Your task to perform on an android device: turn on javascript in the chrome app Image 0: 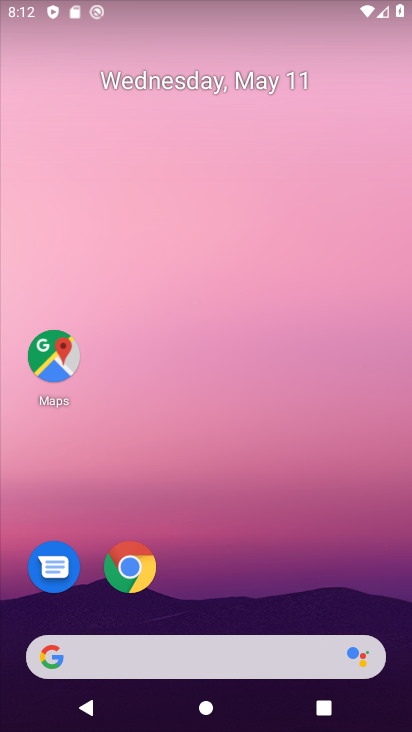
Step 0: drag from (334, 637) to (231, 8)
Your task to perform on an android device: turn on javascript in the chrome app Image 1: 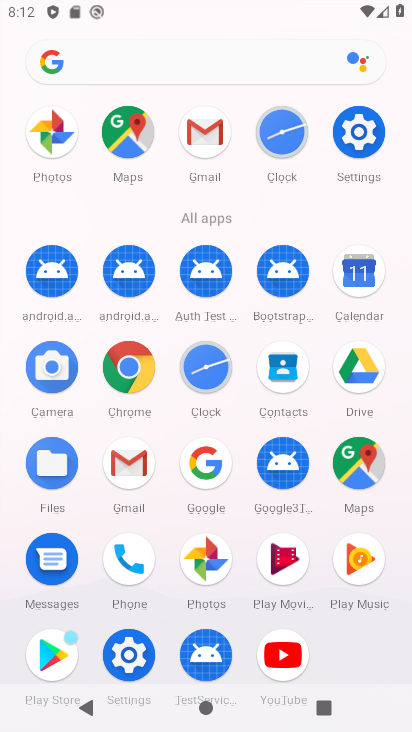
Step 1: click (102, 377)
Your task to perform on an android device: turn on javascript in the chrome app Image 2: 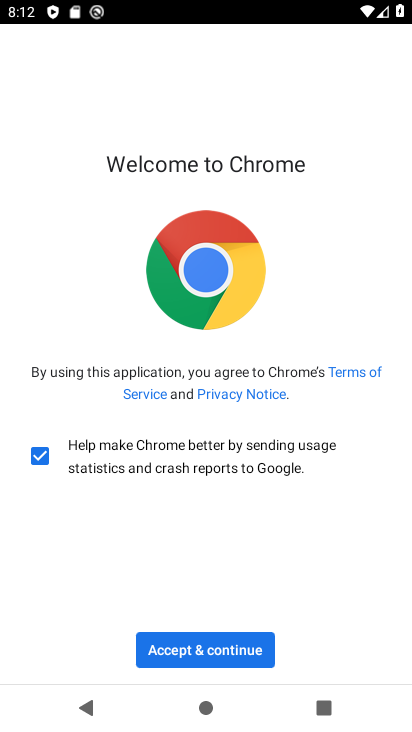
Step 2: click (236, 647)
Your task to perform on an android device: turn on javascript in the chrome app Image 3: 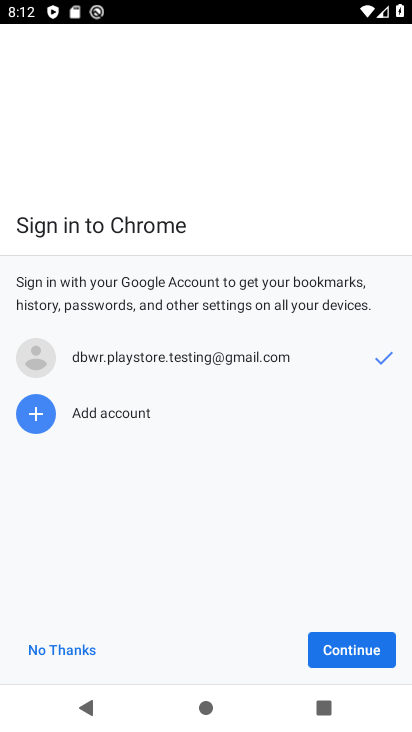
Step 3: click (61, 651)
Your task to perform on an android device: turn on javascript in the chrome app Image 4: 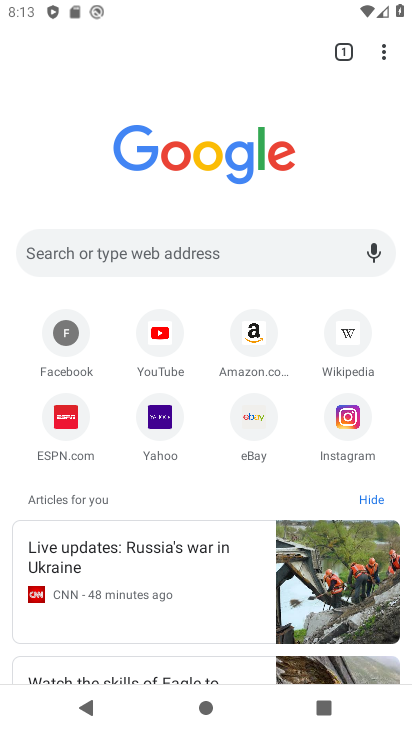
Step 4: drag from (383, 54) to (222, 443)
Your task to perform on an android device: turn on javascript in the chrome app Image 5: 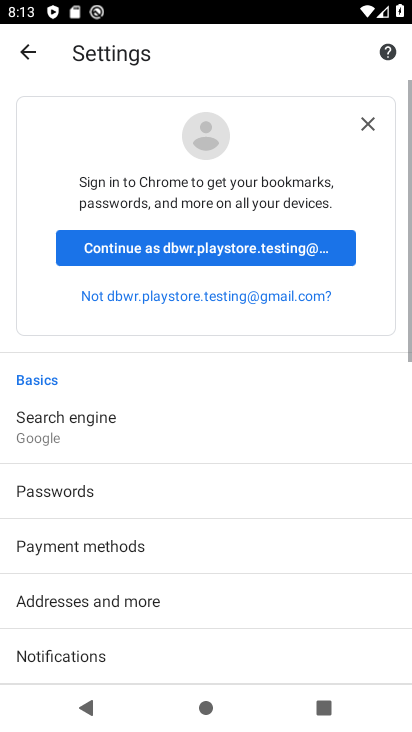
Step 5: drag from (236, 688) to (211, 138)
Your task to perform on an android device: turn on javascript in the chrome app Image 6: 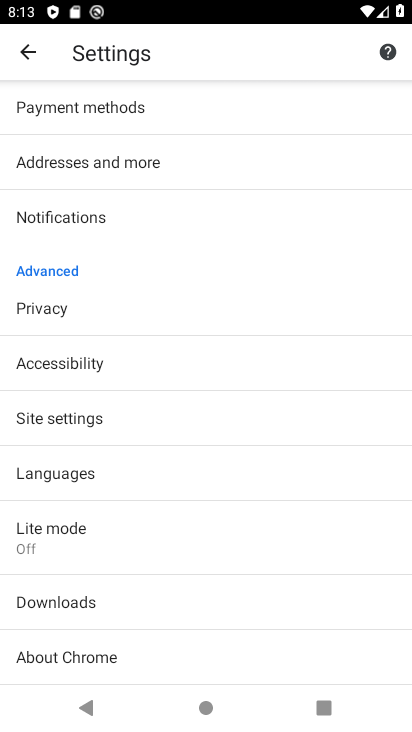
Step 6: click (84, 435)
Your task to perform on an android device: turn on javascript in the chrome app Image 7: 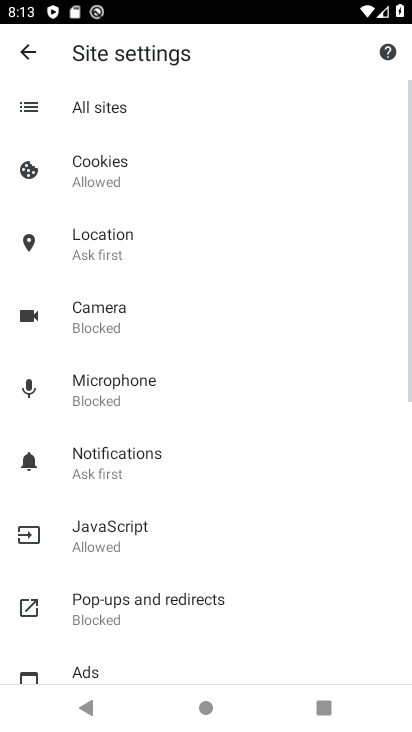
Step 7: click (173, 523)
Your task to perform on an android device: turn on javascript in the chrome app Image 8: 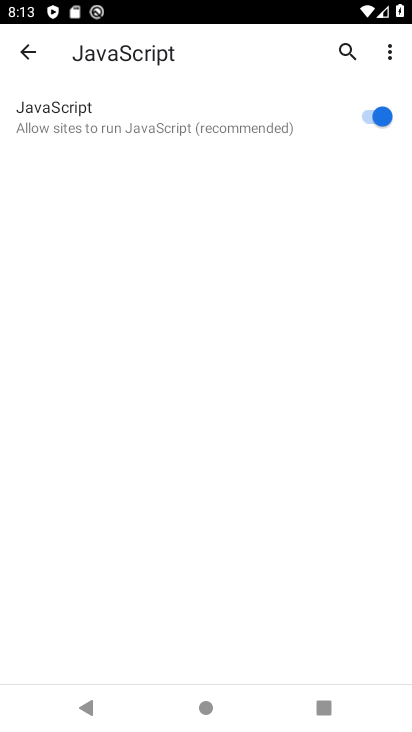
Step 8: task complete